Your task to perform on an android device: Open Chrome and go to settings Image 0: 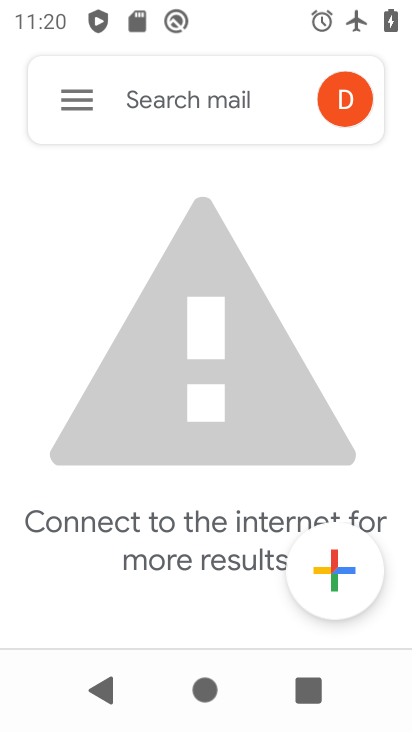
Step 0: press home button
Your task to perform on an android device: Open Chrome and go to settings Image 1: 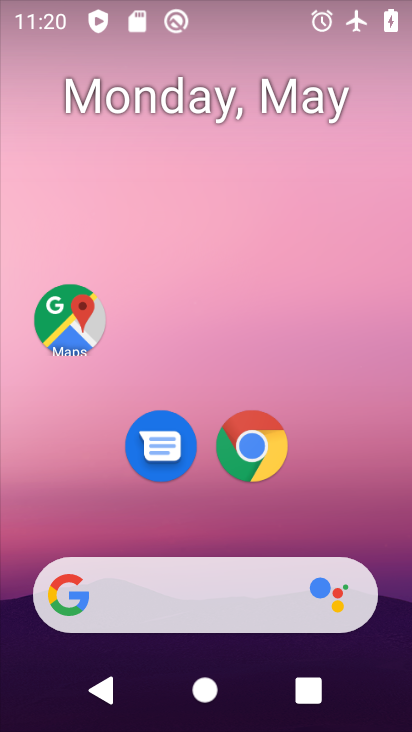
Step 1: click (258, 475)
Your task to perform on an android device: Open Chrome and go to settings Image 2: 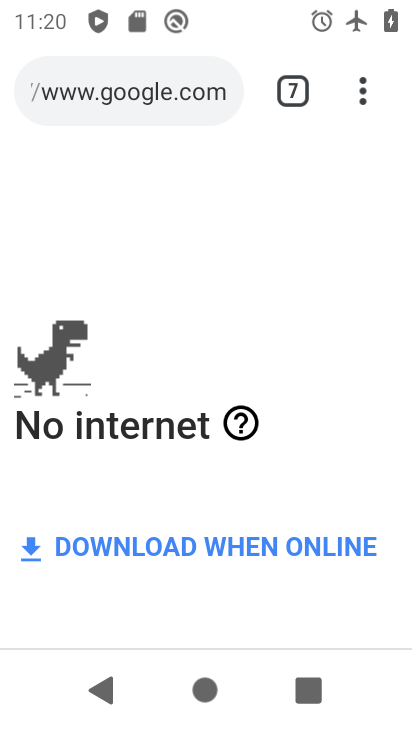
Step 2: click (366, 88)
Your task to perform on an android device: Open Chrome and go to settings Image 3: 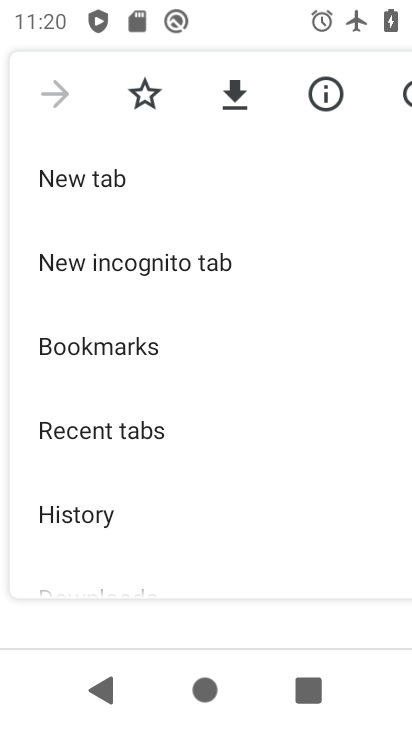
Step 3: drag from (102, 554) to (142, 176)
Your task to perform on an android device: Open Chrome and go to settings Image 4: 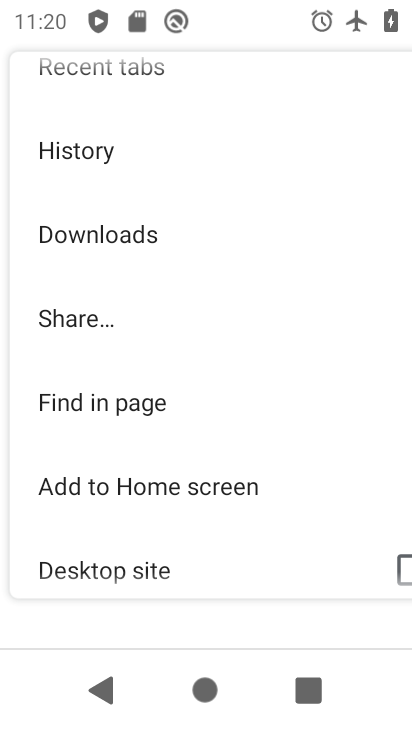
Step 4: drag from (153, 560) to (195, 133)
Your task to perform on an android device: Open Chrome and go to settings Image 5: 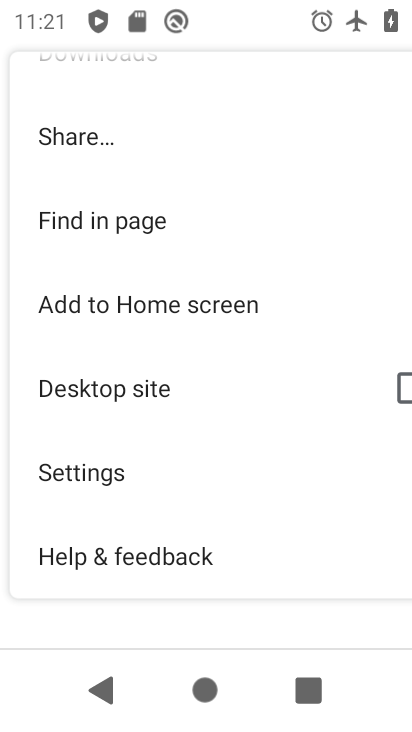
Step 5: click (87, 472)
Your task to perform on an android device: Open Chrome and go to settings Image 6: 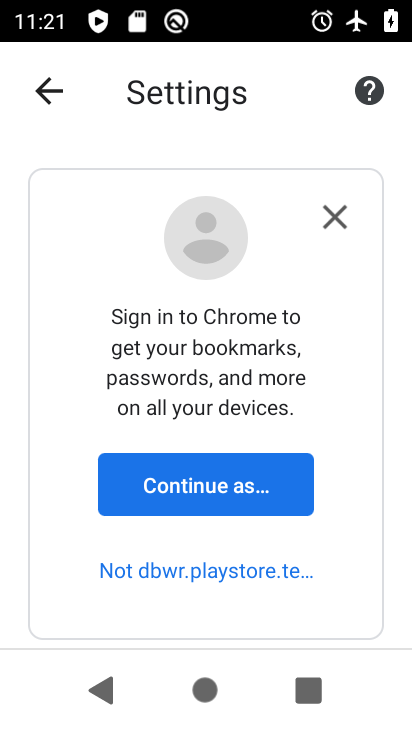
Step 6: task complete